Your task to perform on an android device: star an email in the gmail app Image 0: 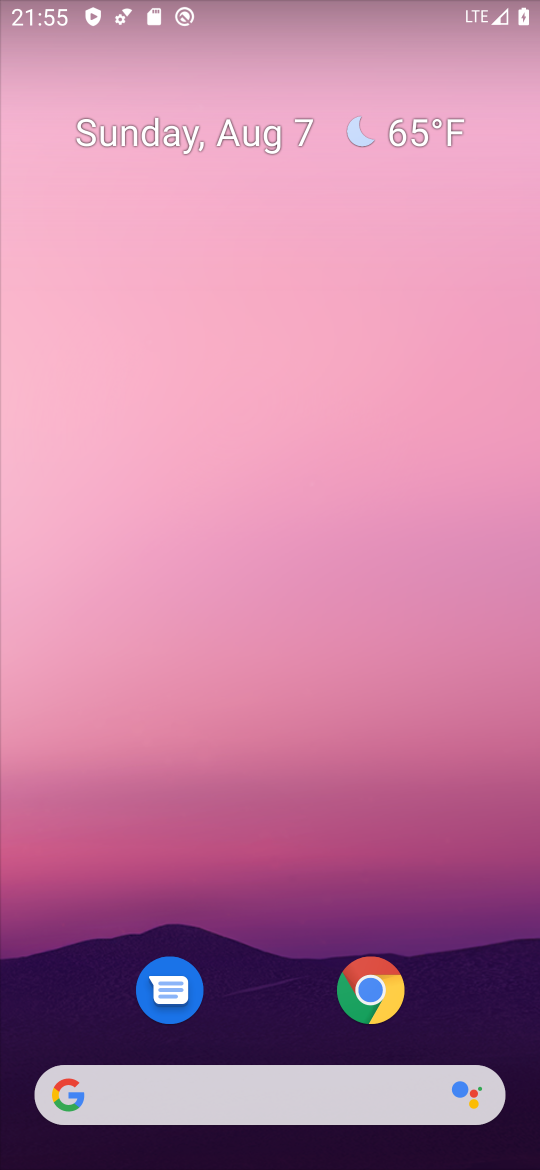
Step 0: drag from (277, 892) to (399, 0)
Your task to perform on an android device: star an email in the gmail app Image 1: 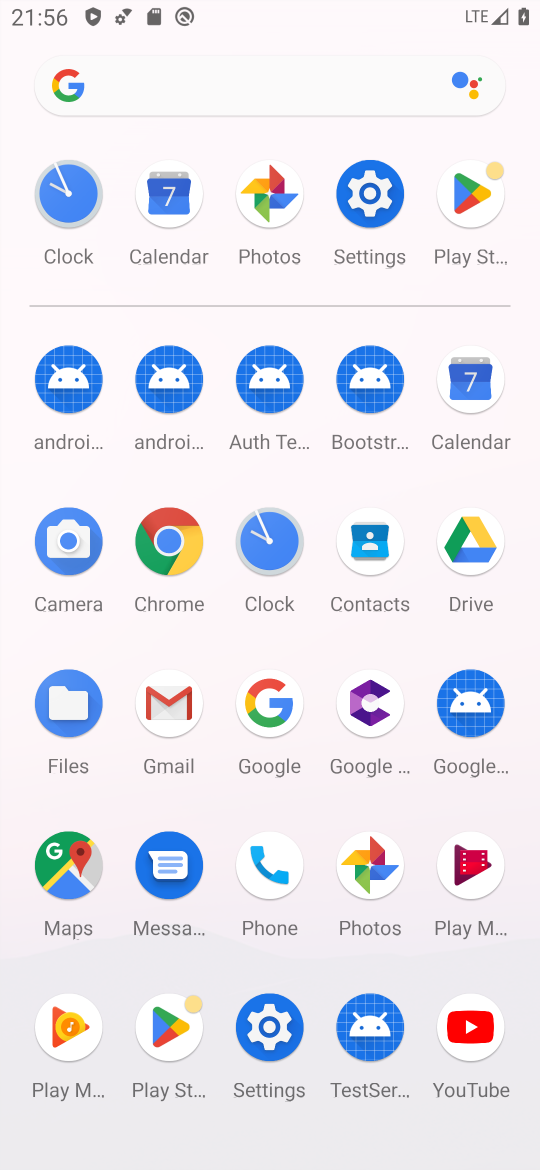
Step 1: click (178, 714)
Your task to perform on an android device: star an email in the gmail app Image 2: 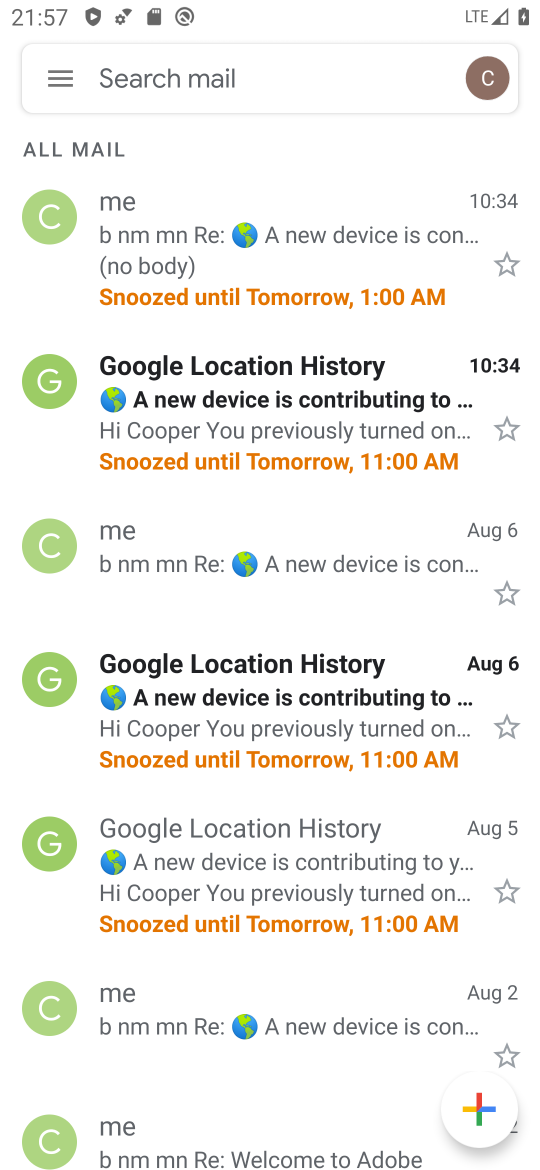
Step 2: click (510, 255)
Your task to perform on an android device: star an email in the gmail app Image 3: 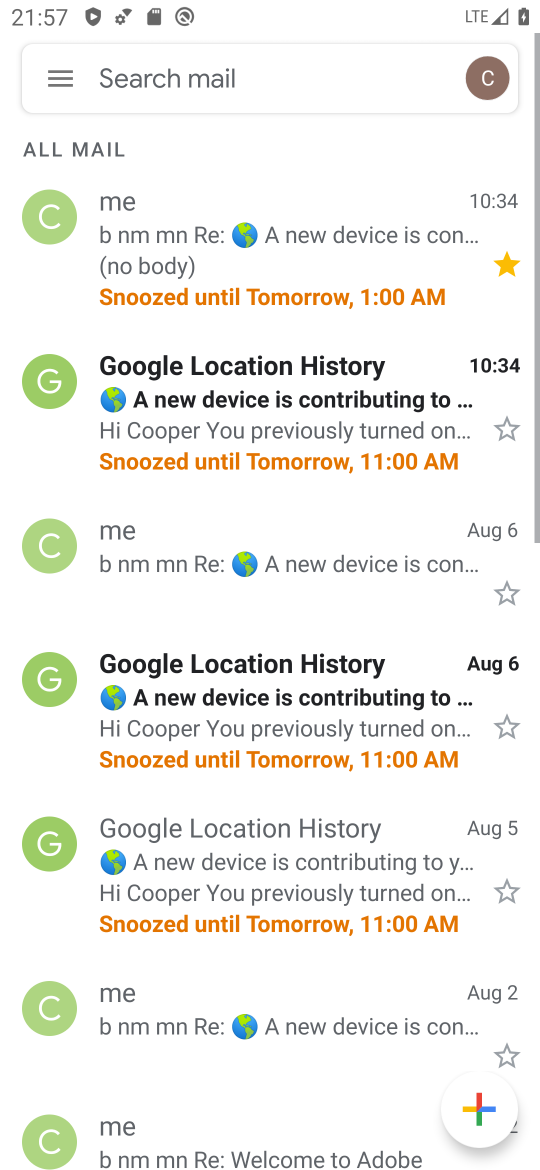
Step 3: task complete